Your task to perform on an android device: What's on my calendar tomorrow? Image 0: 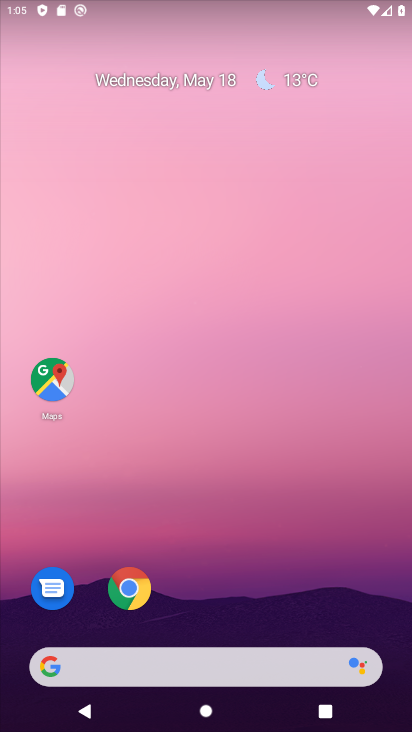
Step 0: drag from (196, 611) to (247, 160)
Your task to perform on an android device: What's on my calendar tomorrow? Image 1: 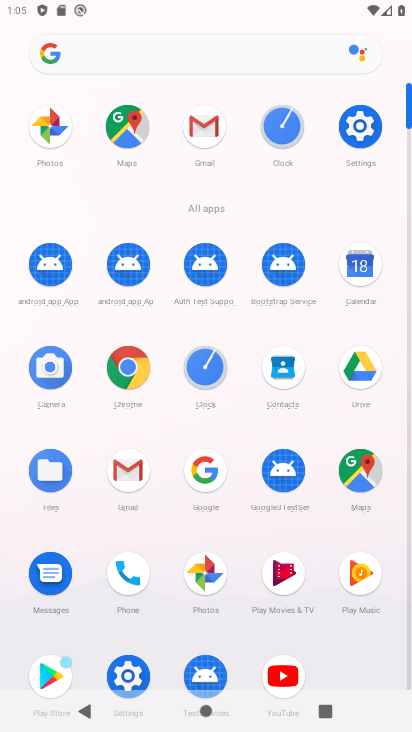
Step 1: click (359, 257)
Your task to perform on an android device: What's on my calendar tomorrow? Image 2: 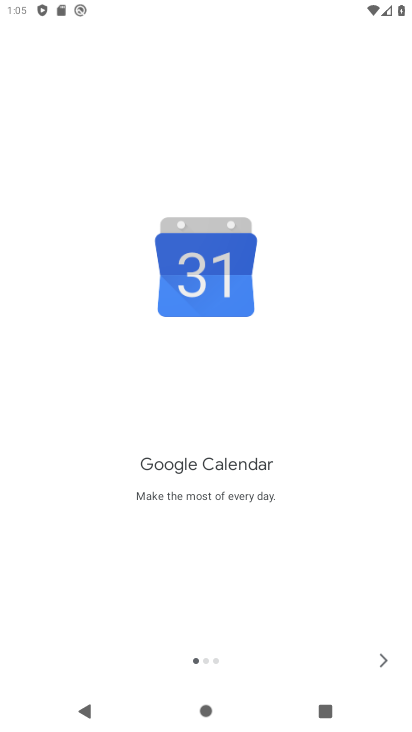
Step 2: click (371, 662)
Your task to perform on an android device: What's on my calendar tomorrow? Image 3: 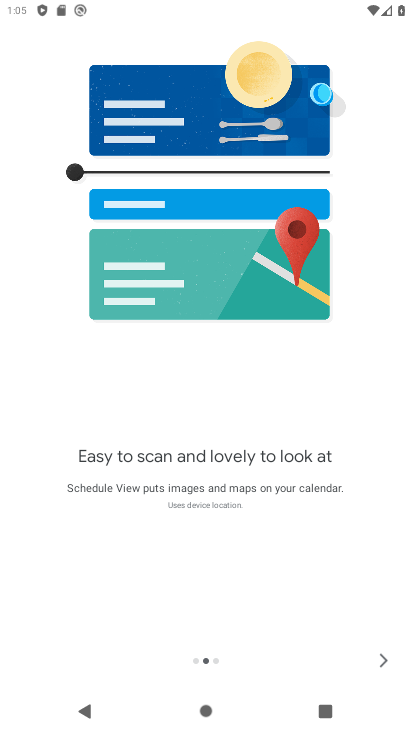
Step 3: click (378, 658)
Your task to perform on an android device: What's on my calendar tomorrow? Image 4: 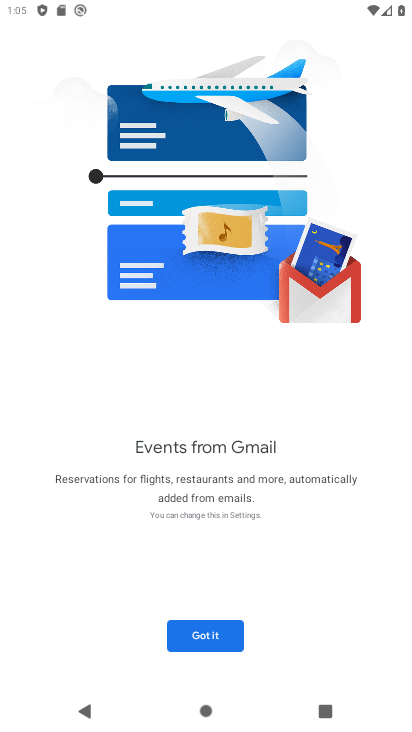
Step 4: click (211, 634)
Your task to perform on an android device: What's on my calendar tomorrow? Image 5: 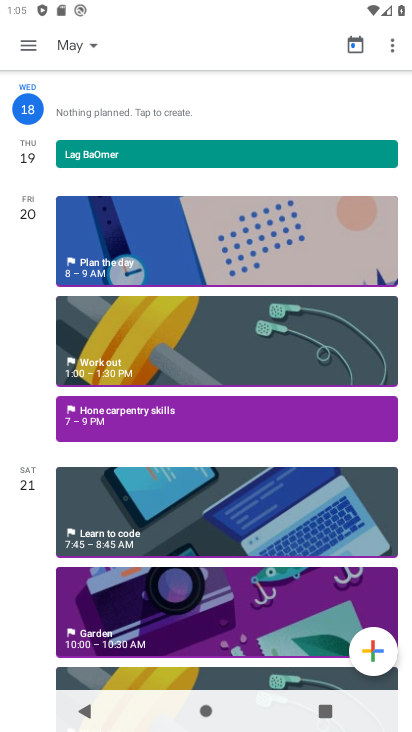
Step 5: drag from (200, 234) to (262, 577)
Your task to perform on an android device: What's on my calendar tomorrow? Image 6: 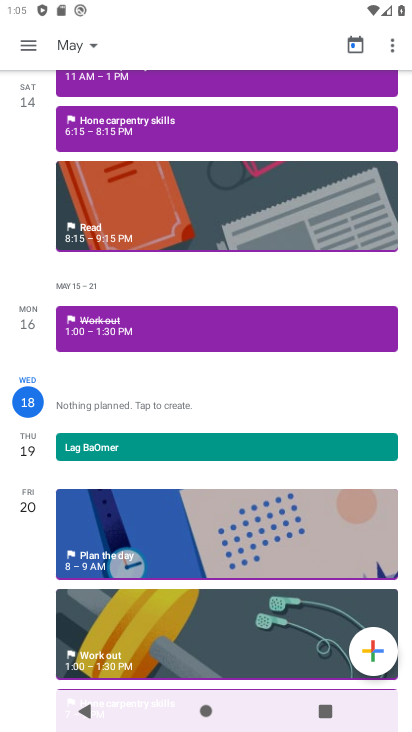
Step 6: click (86, 44)
Your task to perform on an android device: What's on my calendar tomorrow? Image 7: 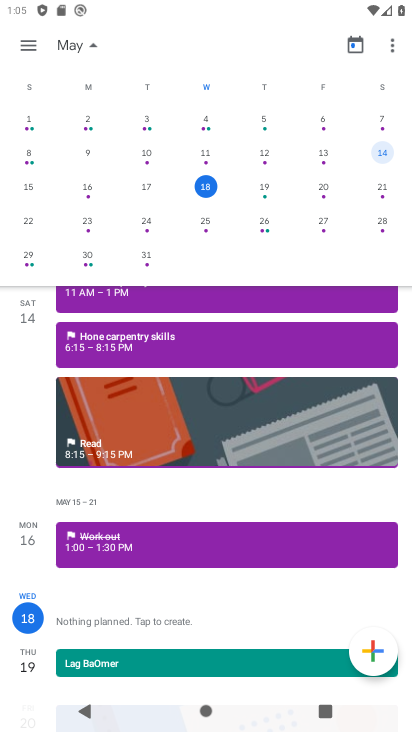
Step 7: click (255, 193)
Your task to perform on an android device: What's on my calendar tomorrow? Image 8: 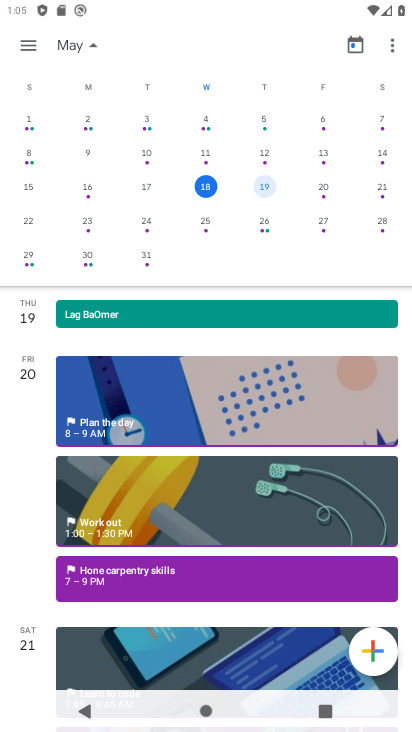
Step 8: task complete